Your task to perform on an android device: Go to internet settings Image 0: 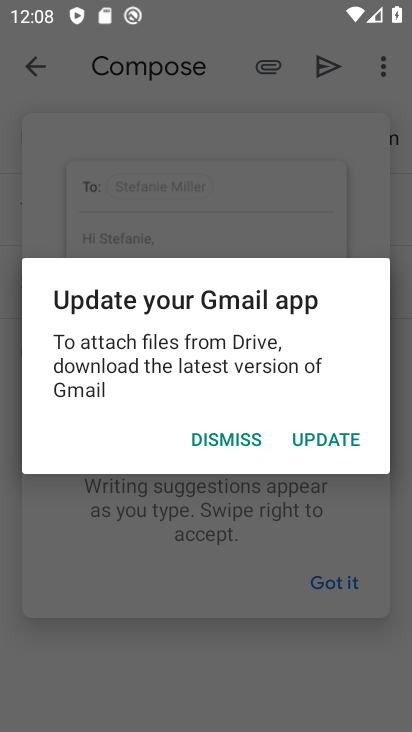
Step 0: press home button
Your task to perform on an android device: Go to internet settings Image 1: 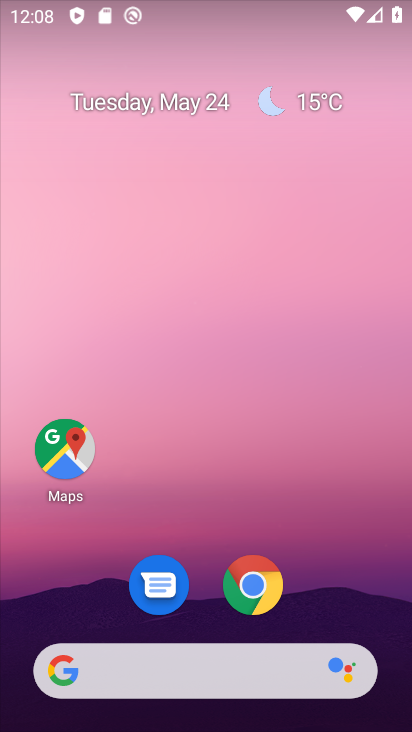
Step 1: drag from (189, 468) to (172, 43)
Your task to perform on an android device: Go to internet settings Image 2: 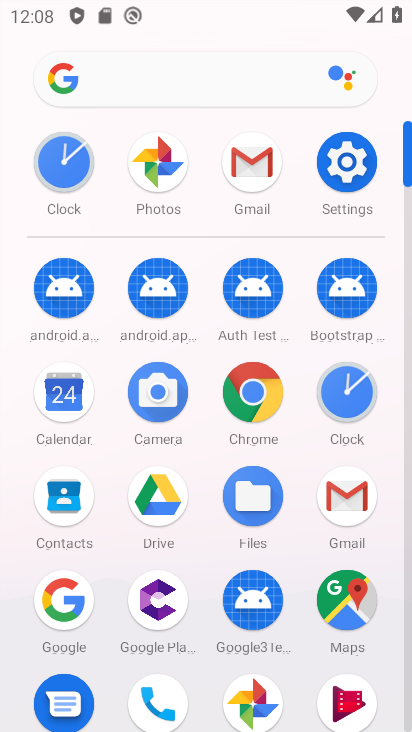
Step 2: click (349, 166)
Your task to perform on an android device: Go to internet settings Image 3: 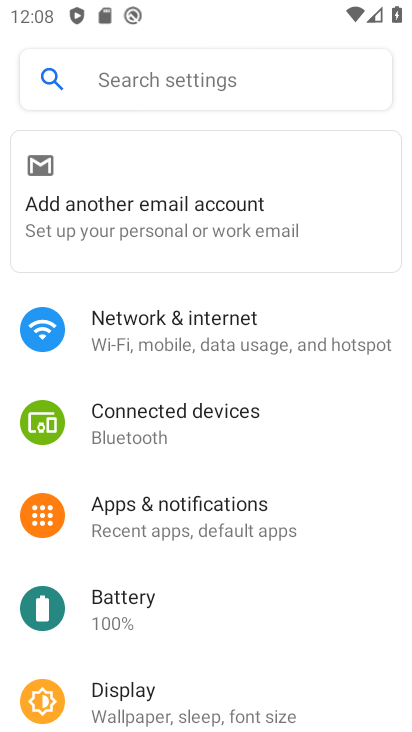
Step 3: click (212, 326)
Your task to perform on an android device: Go to internet settings Image 4: 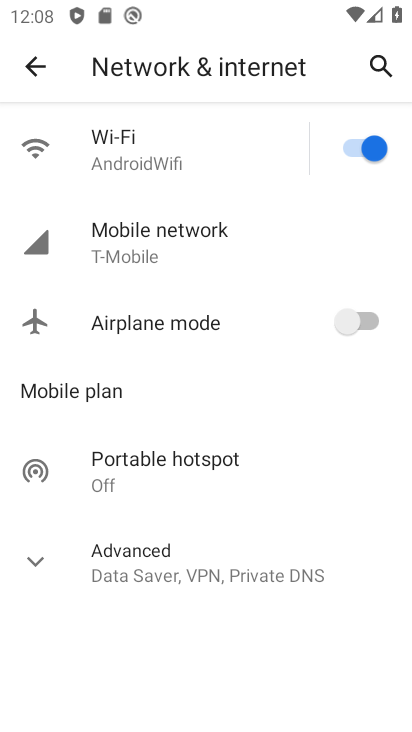
Step 4: task complete